Your task to perform on an android device: Check the news Image 0: 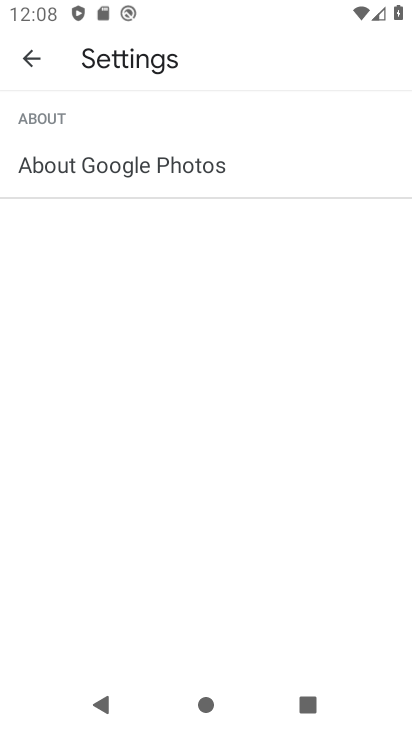
Step 0: press home button
Your task to perform on an android device: Check the news Image 1: 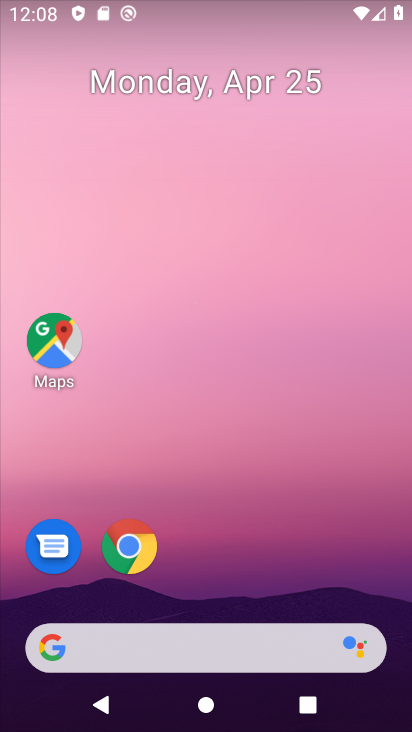
Step 1: drag from (204, 374) to (204, 128)
Your task to perform on an android device: Check the news Image 2: 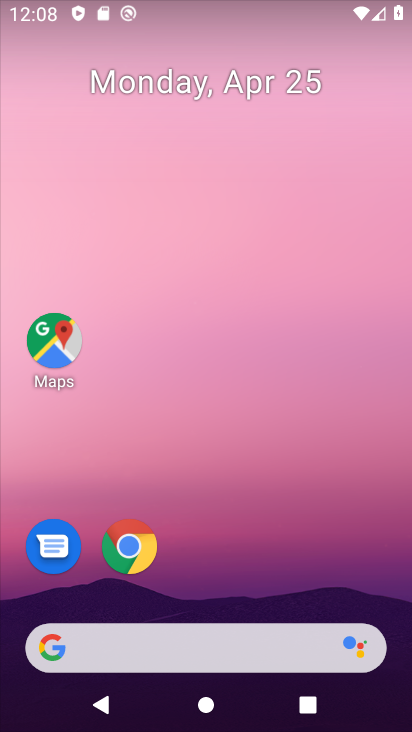
Step 2: drag from (214, 484) to (244, 118)
Your task to perform on an android device: Check the news Image 3: 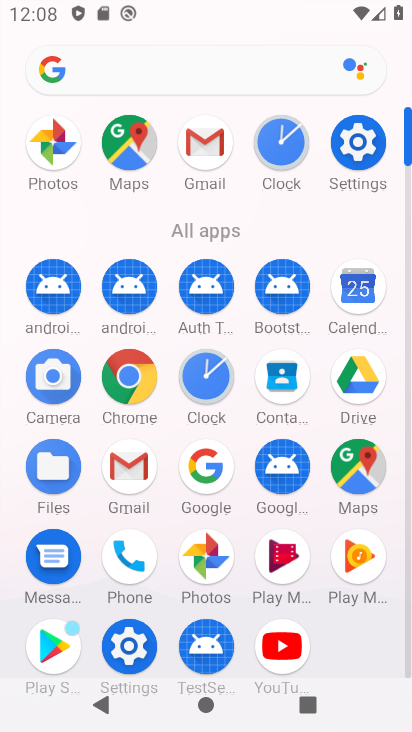
Step 3: click (199, 446)
Your task to perform on an android device: Check the news Image 4: 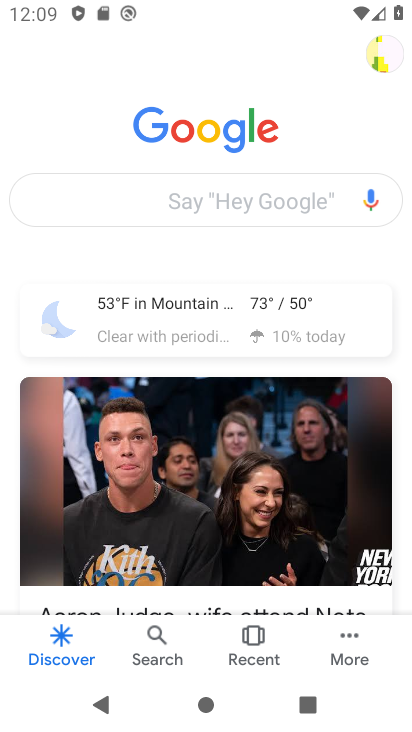
Step 4: task complete